Your task to perform on an android device: turn on location history Image 0: 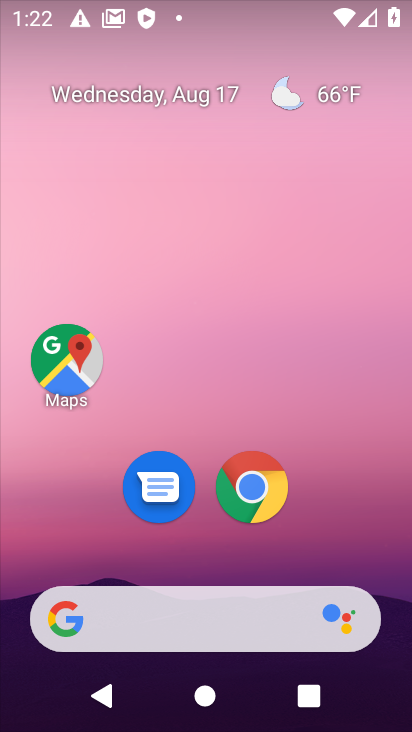
Step 0: press home button
Your task to perform on an android device: turn on location history Image 1: 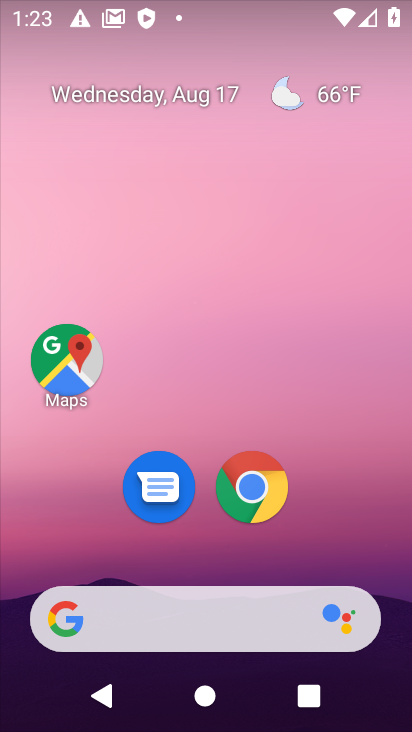
Step 1: drag from (215, 513) to (231, 112)
Your task to perform on an android device: turn on location history Image 2: 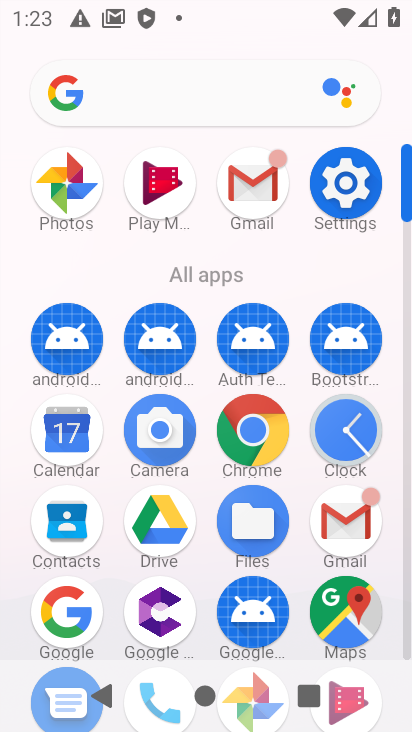
Step 2: click (342, 197)
Your task to perform on an android device: turn on location history Image 3: 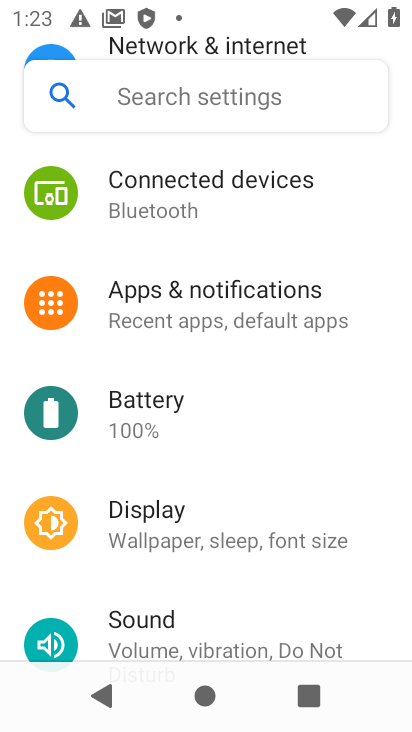
Step 3: drag from (284, 579) to (250, 97)
Your task to perform on an android device: turn on location history Image 4: 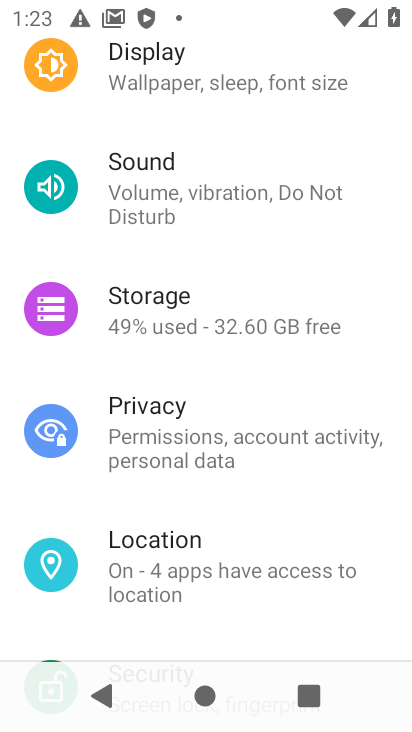
Step 4: click (163, 576)
Your task to perform on an android device: turn on location history Image 5: 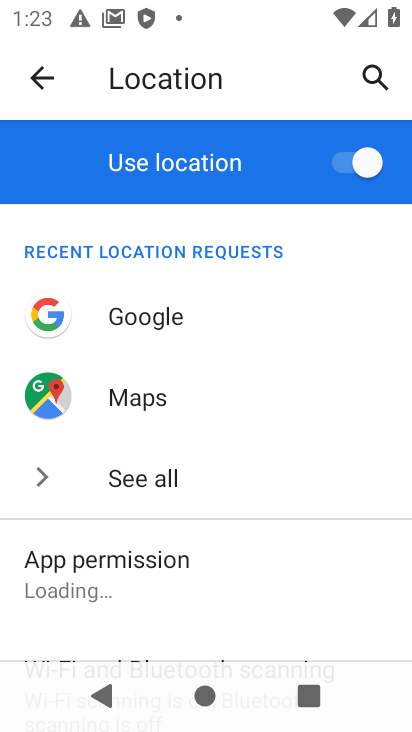
Step 5: drag from (327, 610) to (338, 246)
Your task to perform on an android device: turn on location history Image 6: 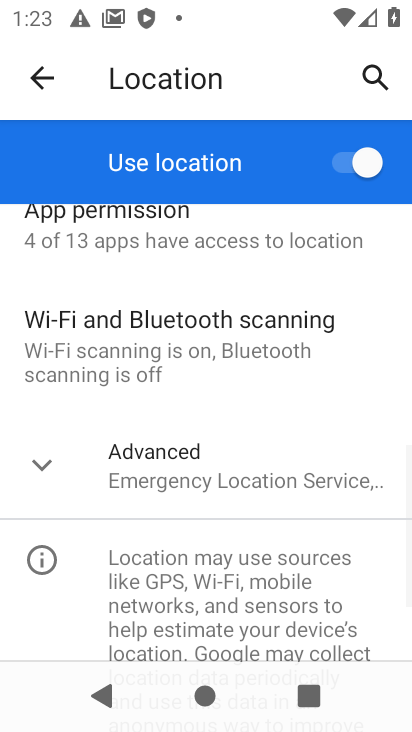
Step 6: click (145, 474)
Your task to perform on an android device: turn on location history Image 7: 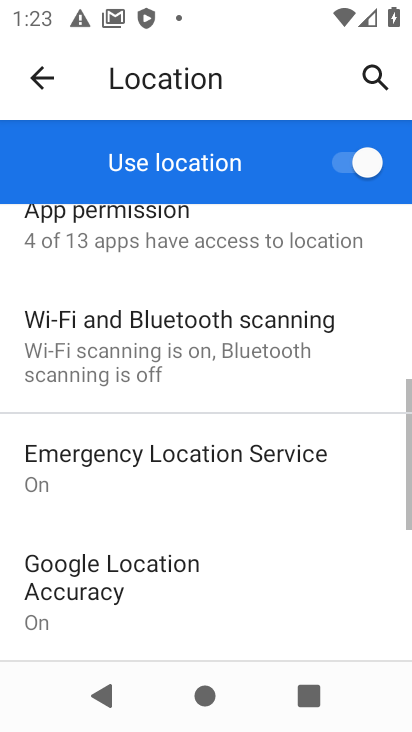
Step 7: drag from (335, 556) to (363, 223)
Your task to perform on an android device: turn on location history Image 8: 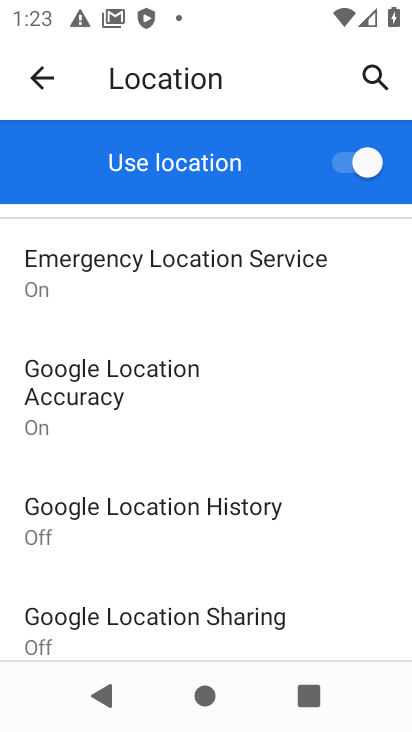
Step 8: click (117, 513)
Your task to perform on an android device: turn on location history Image 9: 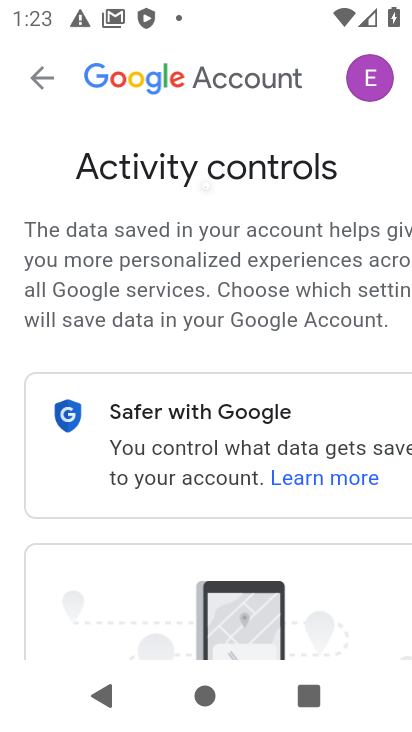
Step 9: drag from (360, 593) to (355, 177)
Your task to perform on an android device: turn on location history Image 10: 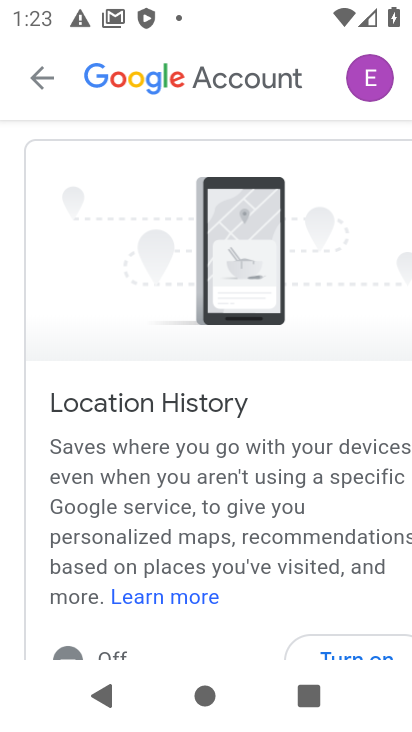
Step 10: drag from (267, 618) to (308, 211)
Your task to perform on an android device: turn on location history Image 11: 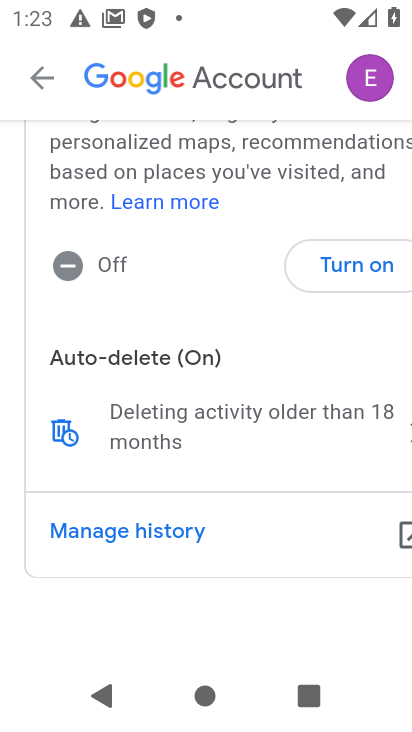
Step 11: click (373, 270)
Your task to perform on an android device: turn on location history Image 12: 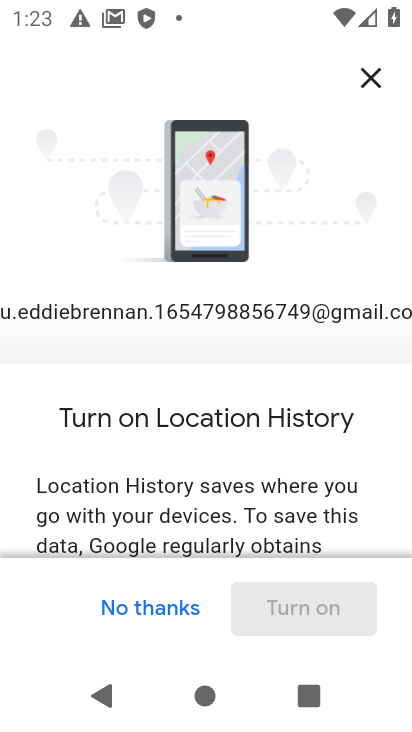
Step 12: drag from (393, 518) to (407, 97)
Your task to perform on an android device: turn on location history Image 13: 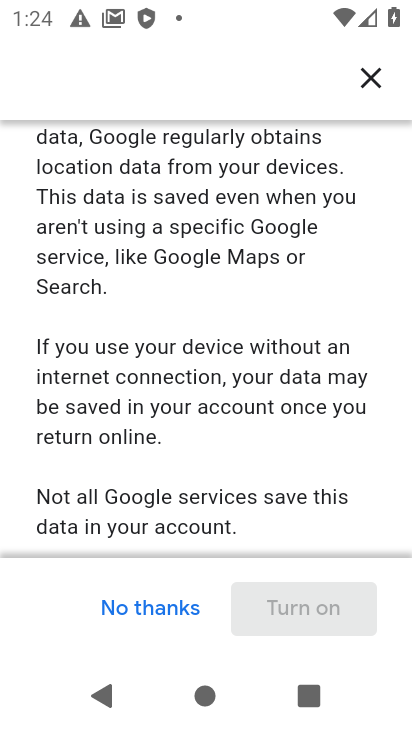
Step 13: drag from (343, 529) to (344, 101)
Your task to perform on an android device: turn on location history Image 14: 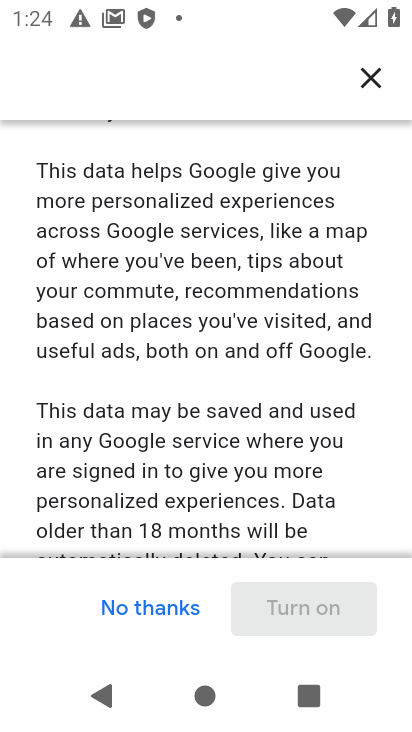
Step 14: drag from (312, 518) to (289, 16)
Your task to perform on an android device: turn on location history Image 15: 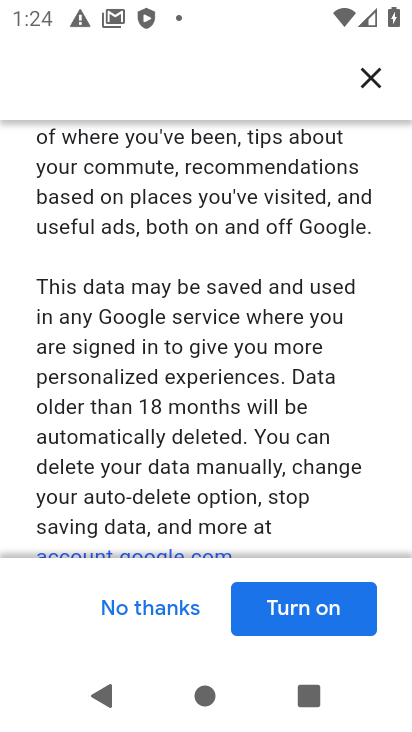
Step 15: click (304, 616)
Your task to perform on an android device: turn on location history Image 16: 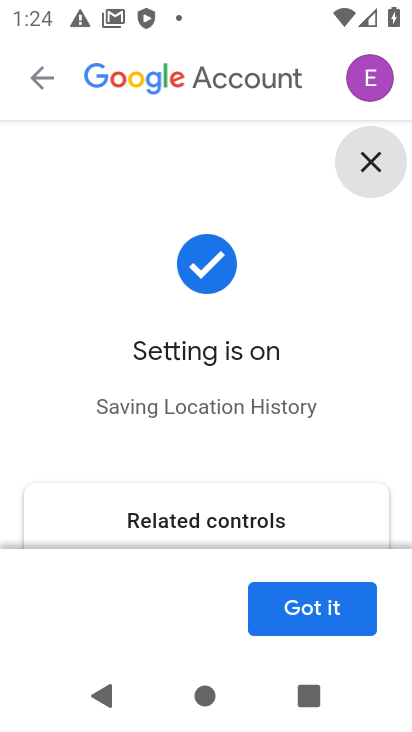
Step 16: click (304, 624)
Your task to perform on an android device: turn on location history Image 17: 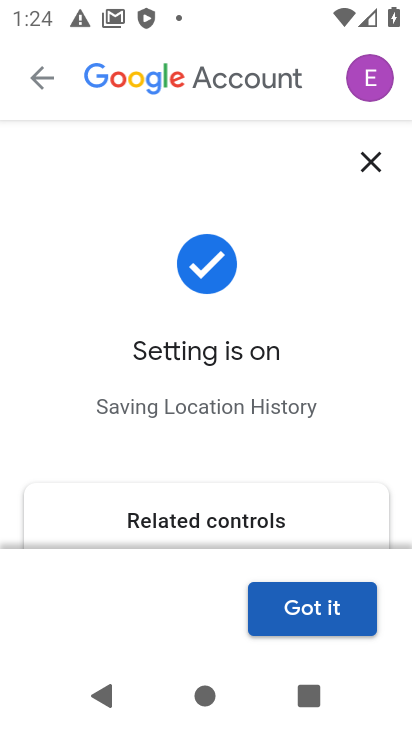
Step 17: click (321, 619)
Your task to perform on an android device: turn on location history Image 18: 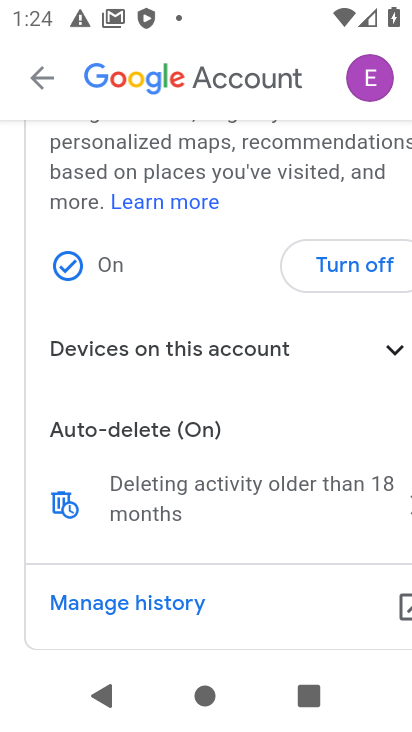
Step 18: task complete